Your task to perform on an android device: Open CNN.com Image 0: 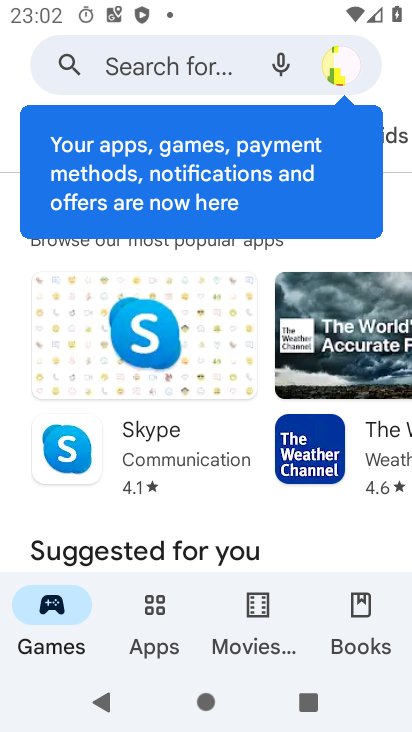
Step 0: press home button
Your task to perform on an android device: Open CNN.com Image 1: 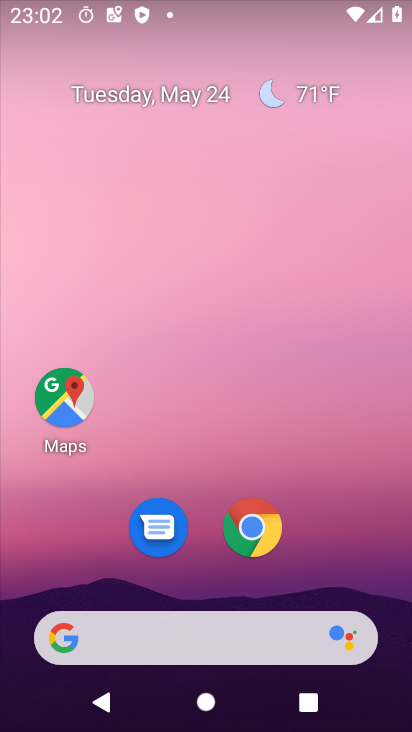
Step 1: click (247, 517)
Your task to perform on an android device: Open CNN.com Image 2: 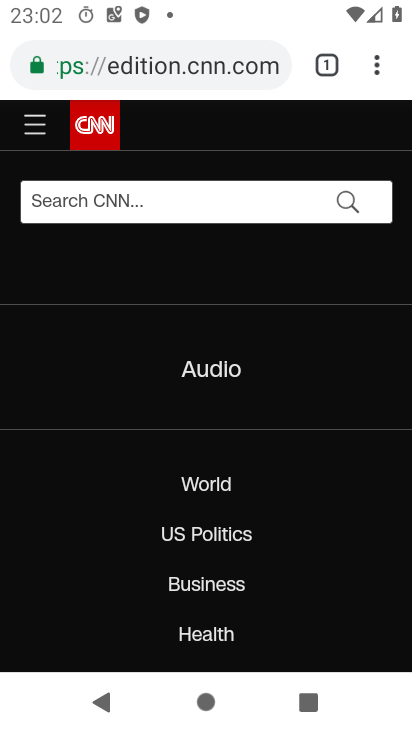
Step 2: task complete